Your task to perform on an android device: delete the emails in spam in the gmail app Image 0: 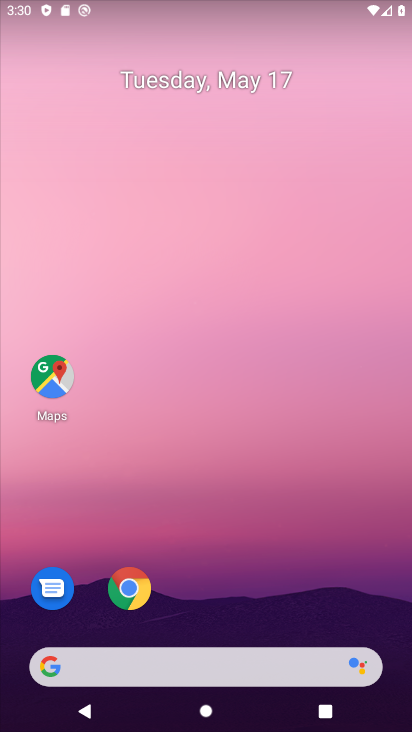
Step 0: drag from (227, 578) to (228, 82)
Your task to perform on an android device: delete the emails in spam in the gmail app Image 1: 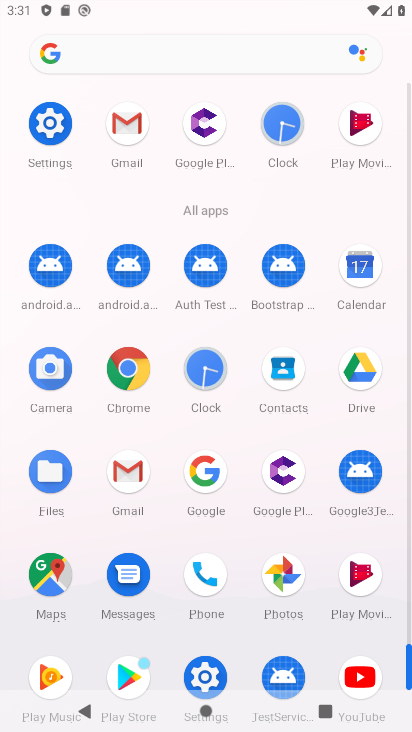
Step 1: click (125, 125)
Your task to perform on an android device: delete the emails in spam in the gmail app Image 2: 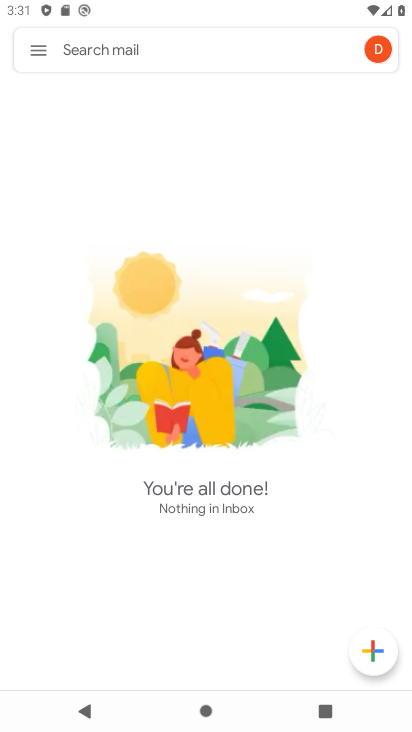
Step 2: click (41, 55)
Your task to perform on an android device: delete the emails in spam in the gmail app Image 3: 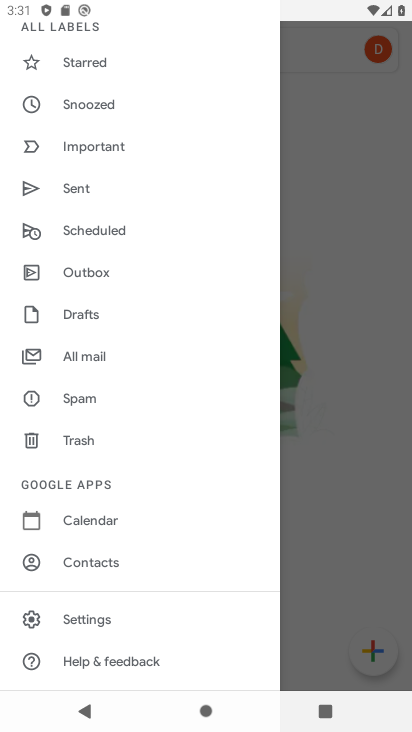
Step 3: click (94, 401)
Your task to perform on an android device: delete the emails in spam in the gmail app Image 4: 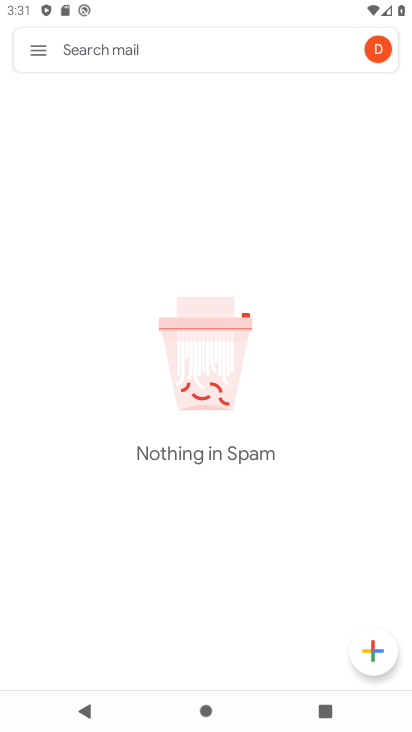
Step 4: task complete